Your task to perform on an android device: toggle data saver in the chrome app Image 0: 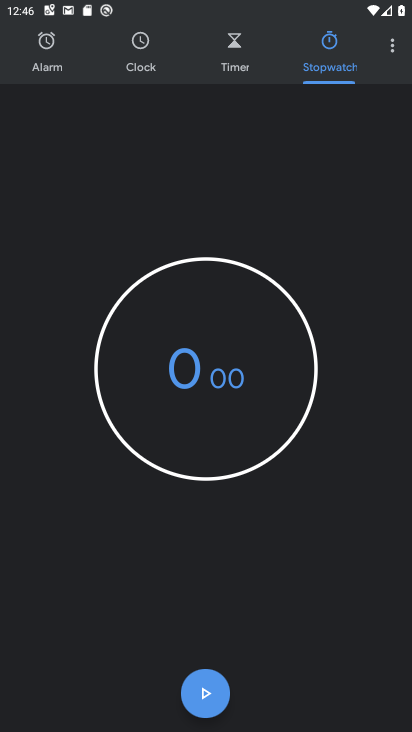
Step 0: press home button
Your task to perform on an android device: toggle data saver in the chrome app Image 1: 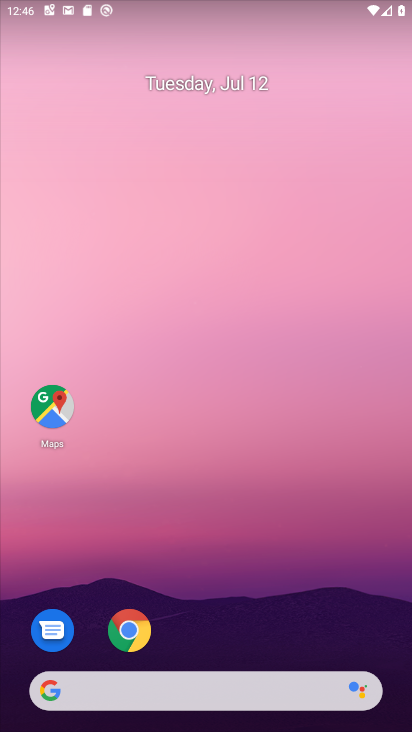
Step 1: drag from (263, 624) to (291, 208)
Your task to perform on an android device: toggle data saver in the chrome app Image 2: 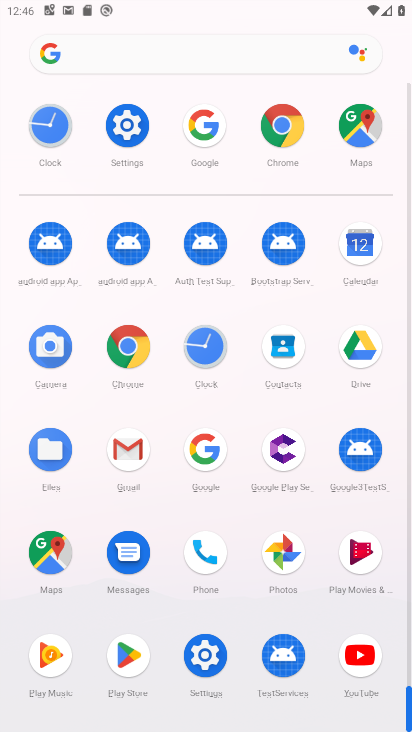
Step 2: click (289, 134)
Your task to perform on an android device: toggle data saver in the chrome app Image 3: 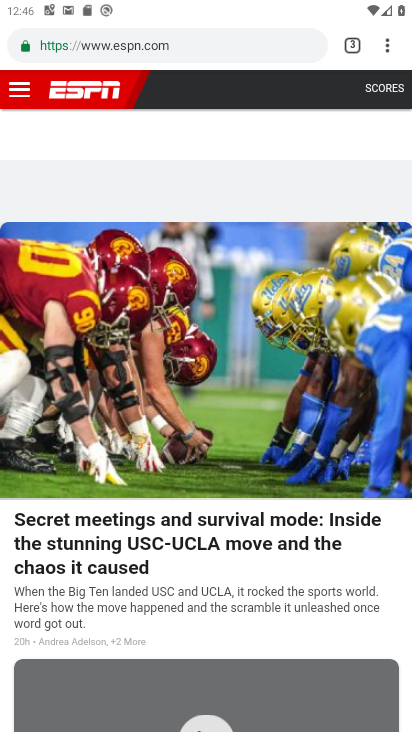
Step 3: click (390, 45)
Your task to perform on an android device: toggle data saver in the chrome app Image 4: 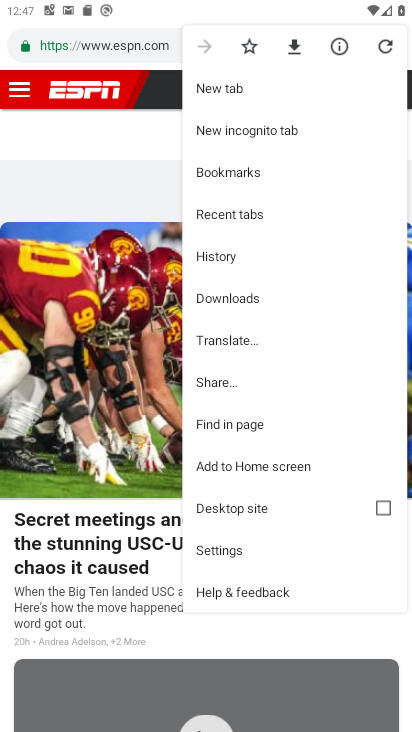
Step 4: click (227, 548)
Your task to perform on an android device: toggle data saver in the chrome app Image 5: 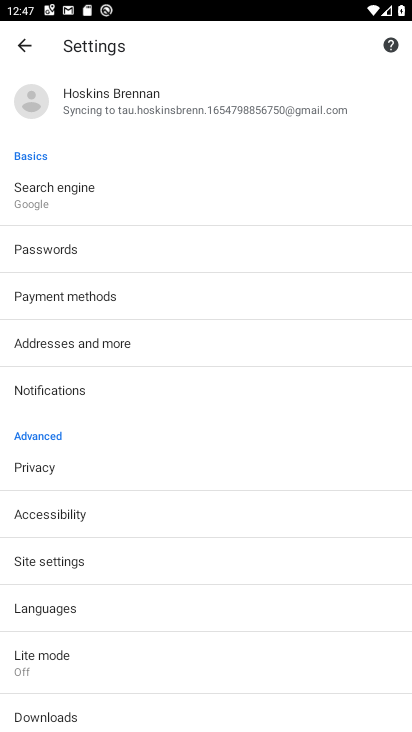
Step 5: click (70, 666)
Your task to perform on an android device: toggle data saver in the chrome app Image 6: 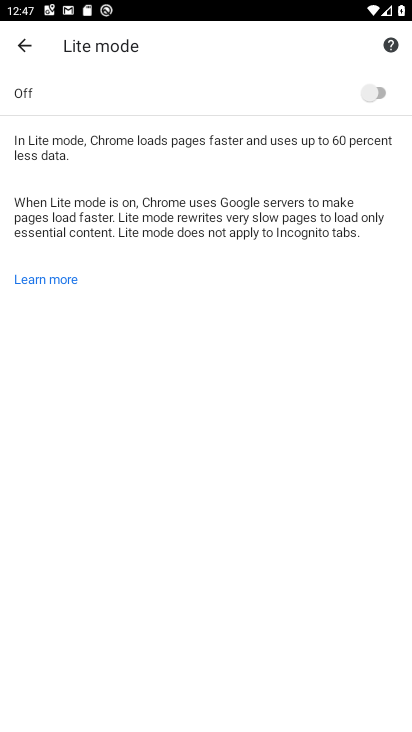
Step 6: click (378, 98)
Your task to perform on an android device: toggle data saver in the chrome app Image 7: 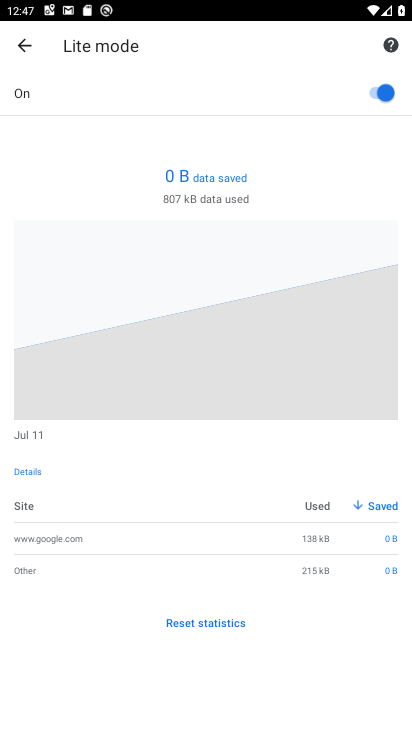
Step 7: task complete